Your task to perform on an android device: toggle javascript in the chrome app Image 0: 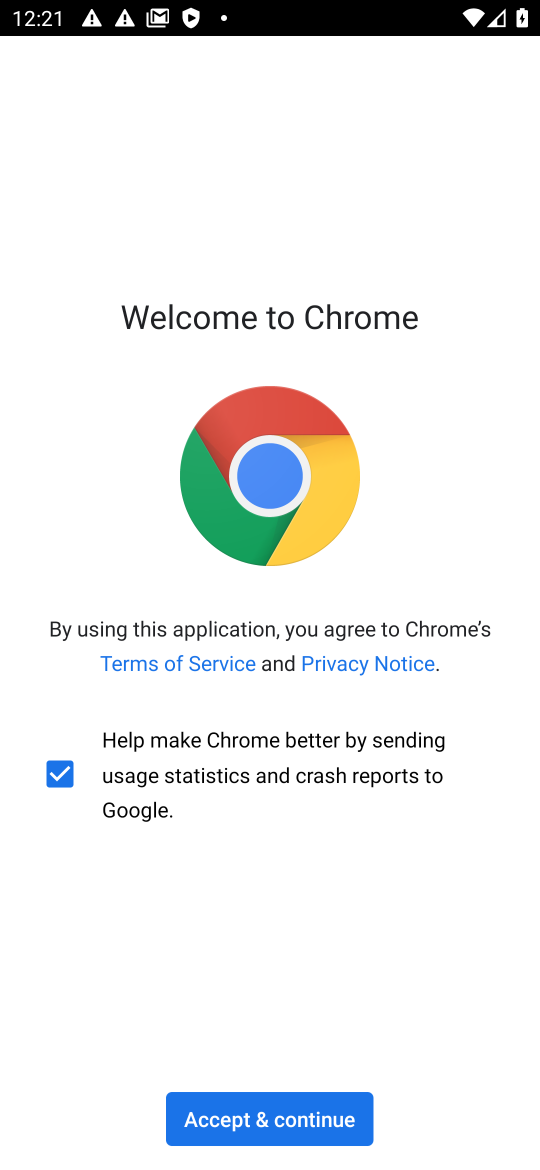
Step 0: click (245, 1109)
Your task to perform on an android device: toggle javascript in the chrome app Image 1: 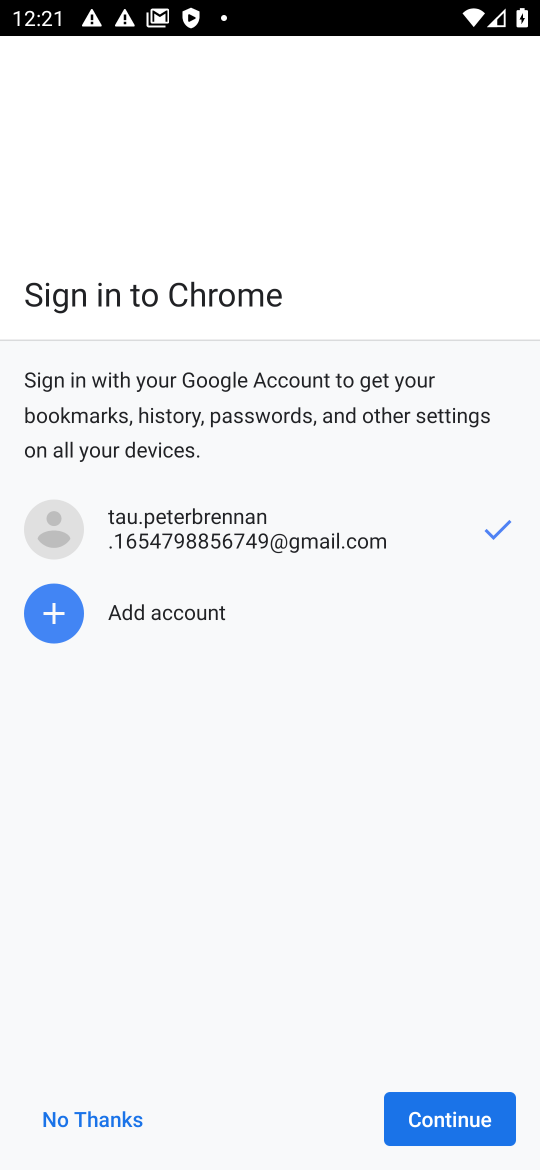
Step 1: click (430, 1126)
Your task to perform on an android device: toggle javascript in the chrome app Image 2: 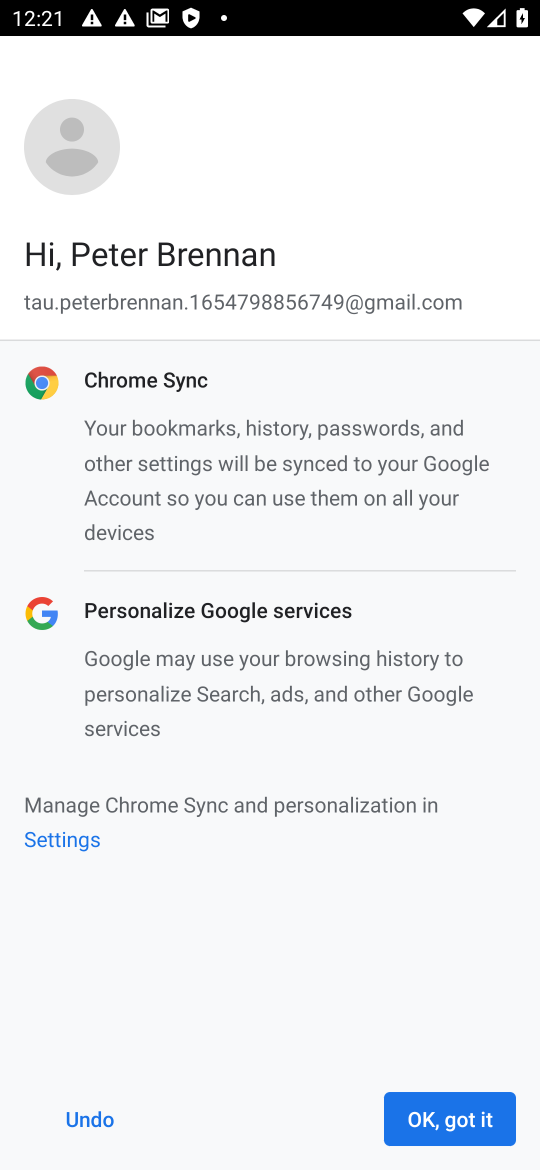
Step 2: click (430, 1126)
Your task to perform on an android device: toggle javascript in the chrome app Image 3: 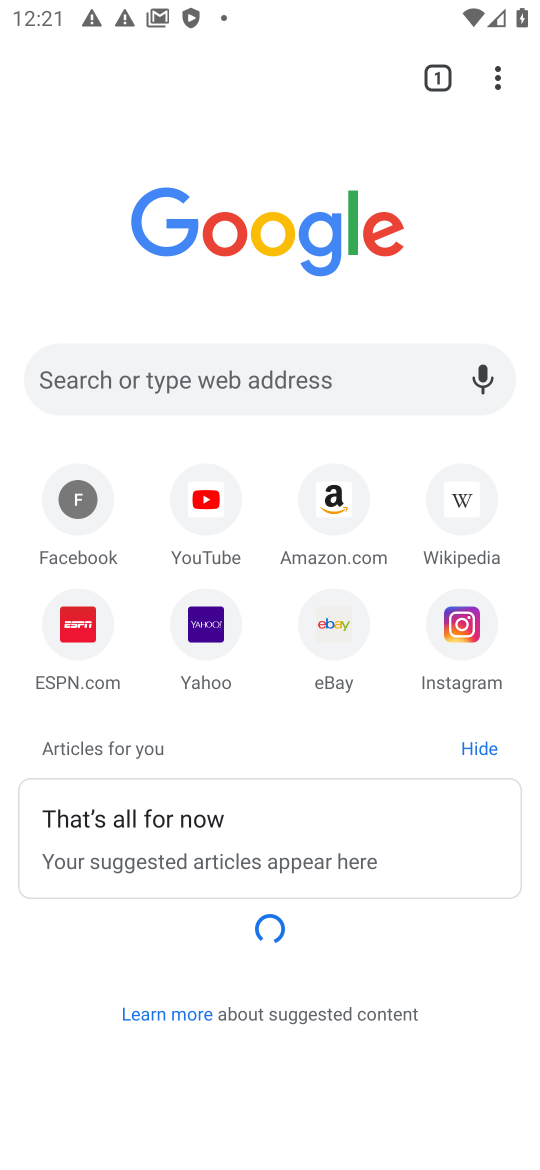
Step 3: click (498, 79)
Your task to perform on an android device: toggle javascript in the chrome app Image 4: 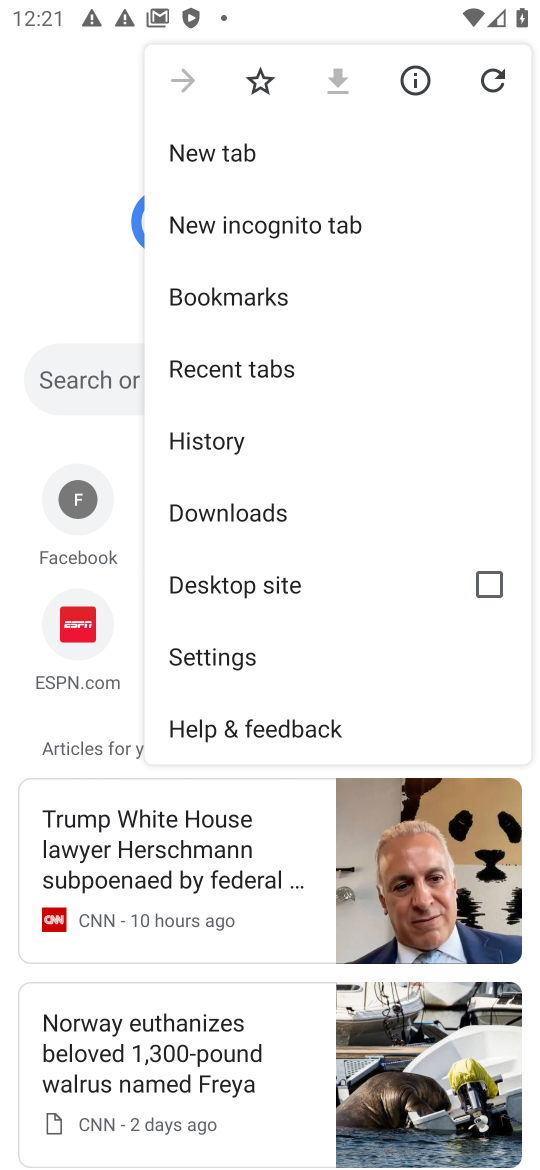
Step 4: click (207, 656)
Your task to perform on an android device: toggle javascript in the chrome app Image 5: 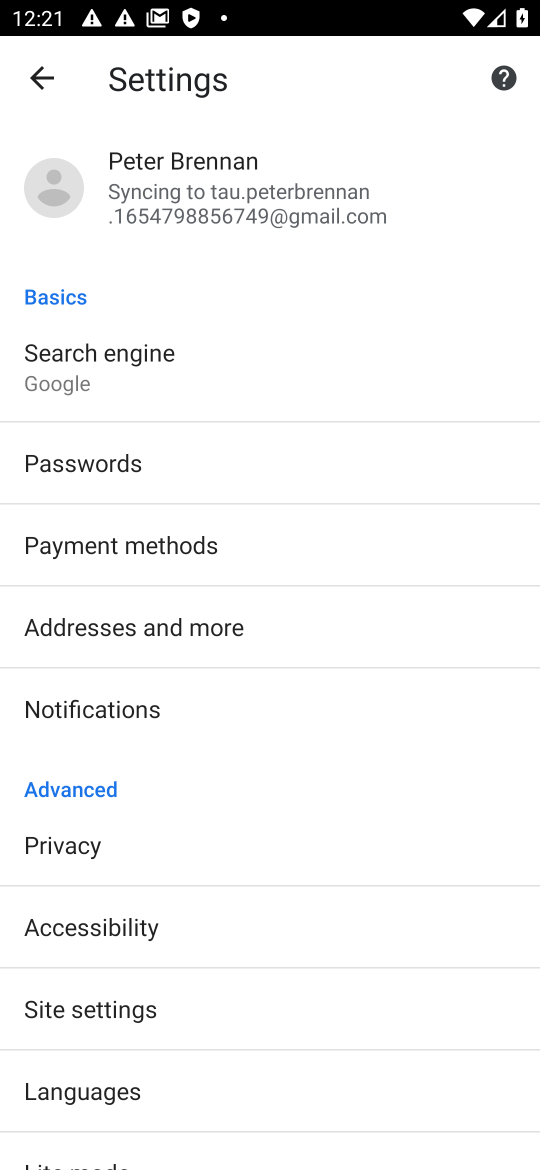
Step 5: click (119, 1014)
Your task to perform on an android device: toggle javascript in the chrome app Image 6: 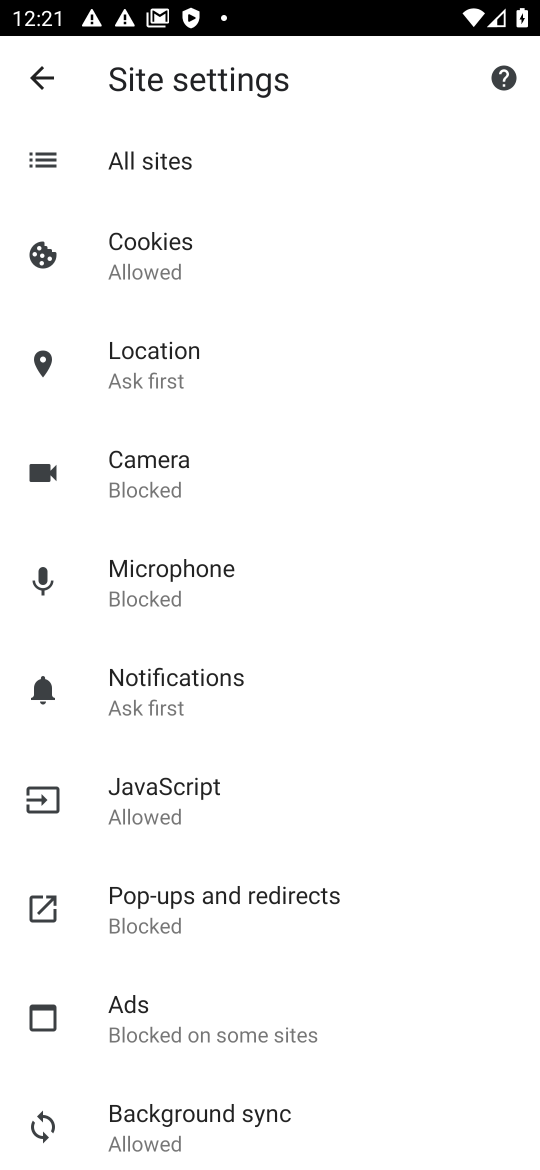
Step 6: click (171, 806)
Your task to perform on an android device: toggle javascript in the chrome app Image 7: 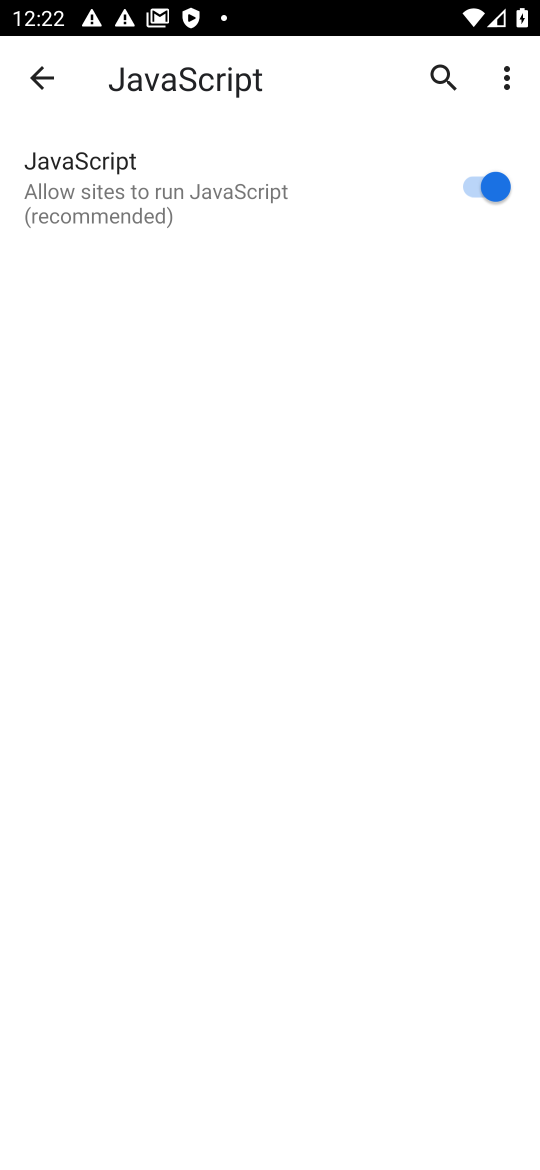
Step 7: task complete